Your task to perform on an android device: install app "YouTube Kids" Image 0: 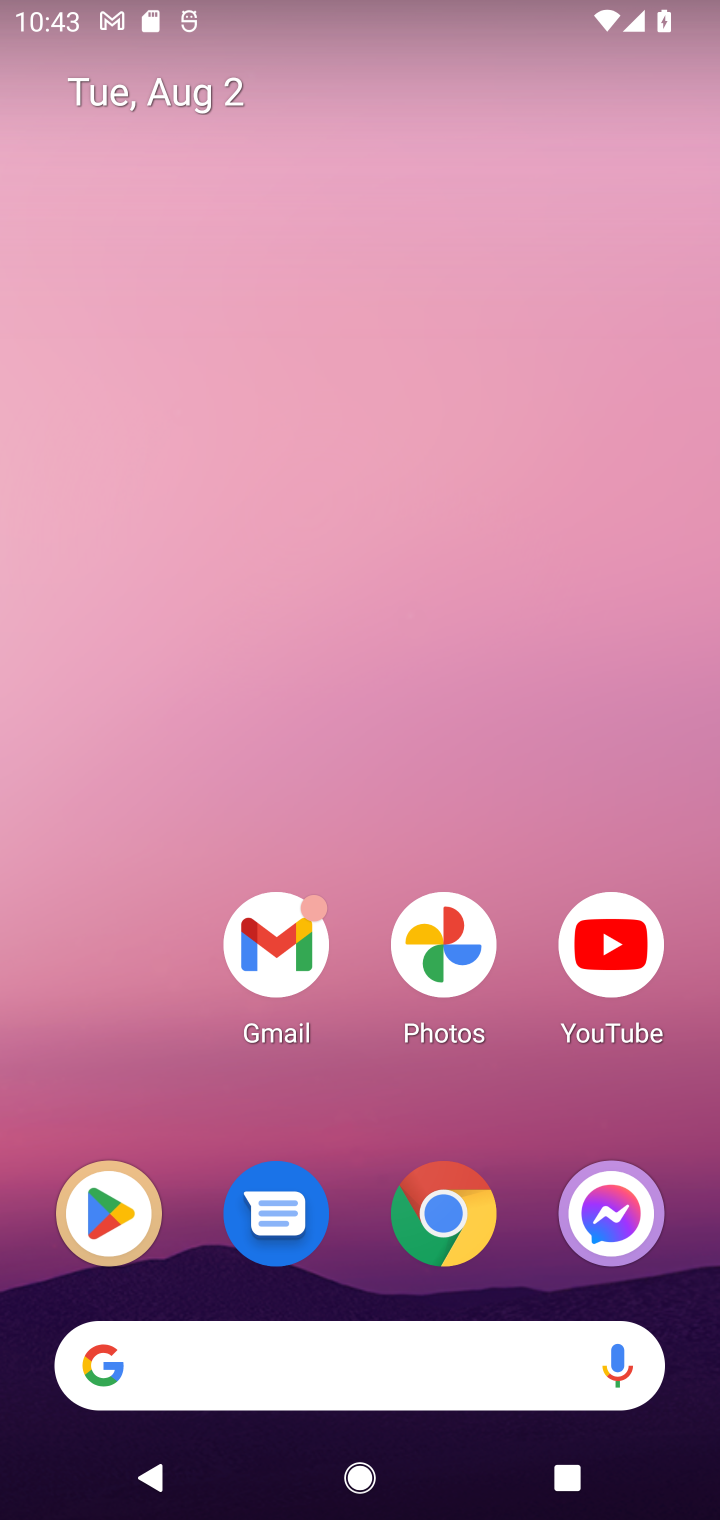
Step 0: press home button
Your task to perform on an android device: install app "YouTube Kids" Image 1: 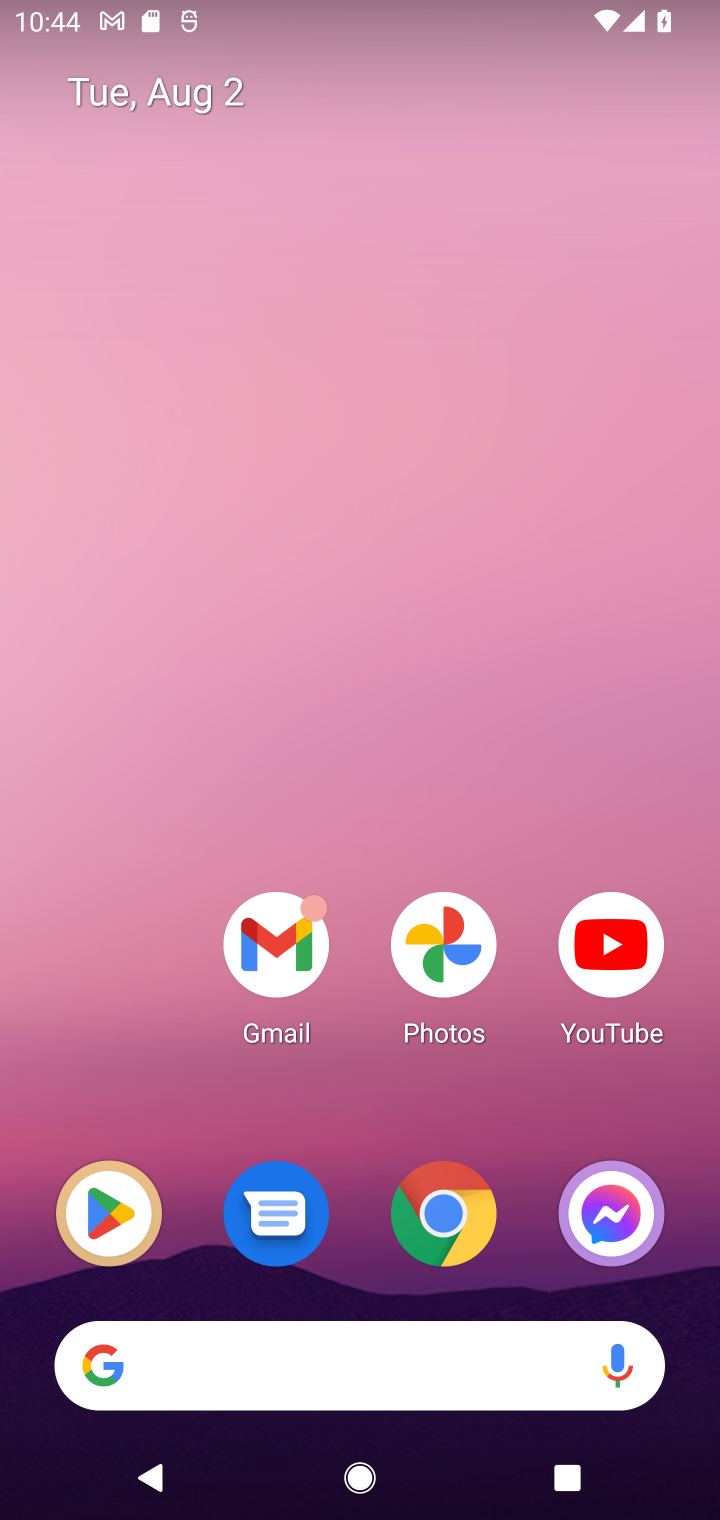
Step 1: drag from (360, 1254) to (311, 96)
Your task to perform on an android device: install app "YouTube Kids" Image 2: 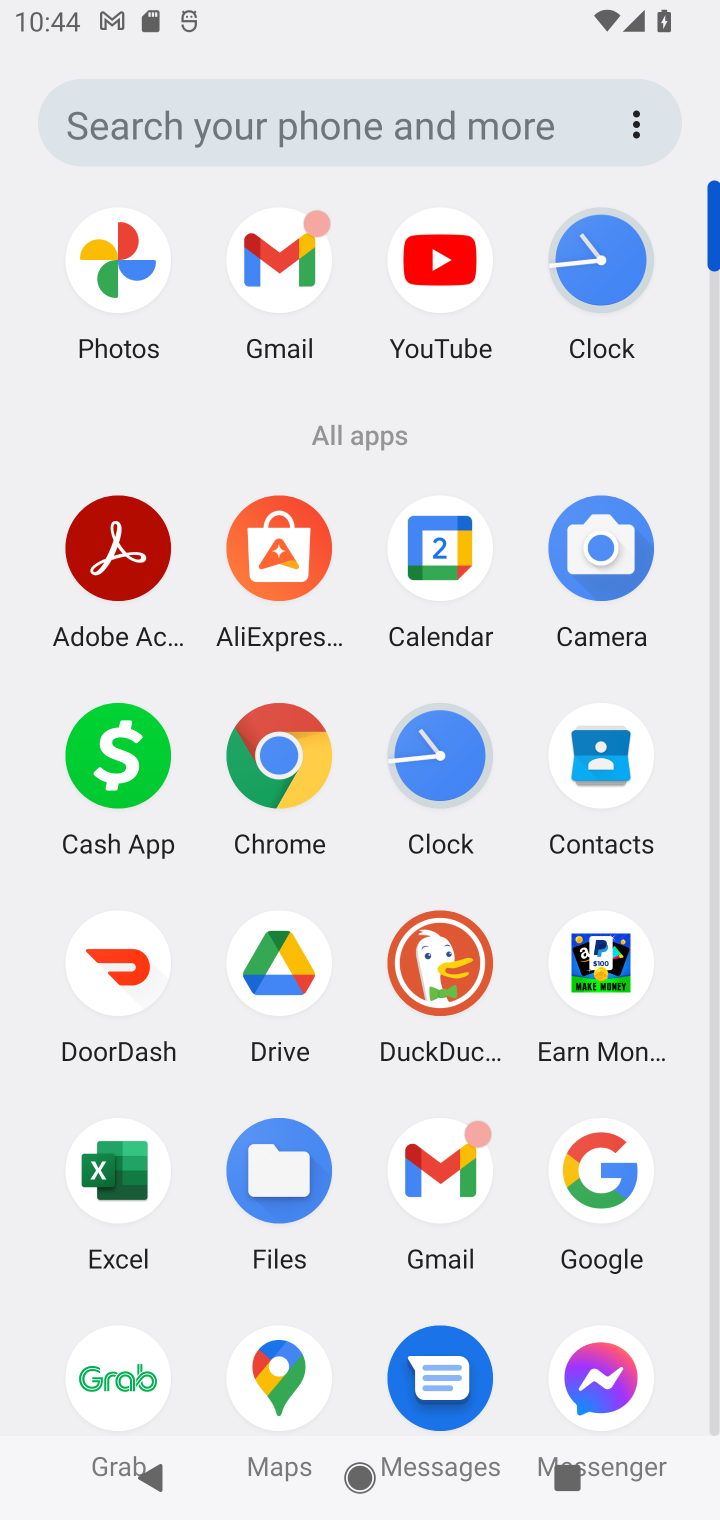
Step 2: drag from (335, 1202) to (371, 375)
Your task to perform on an android device: install app "YouTube Kids" Image 3: 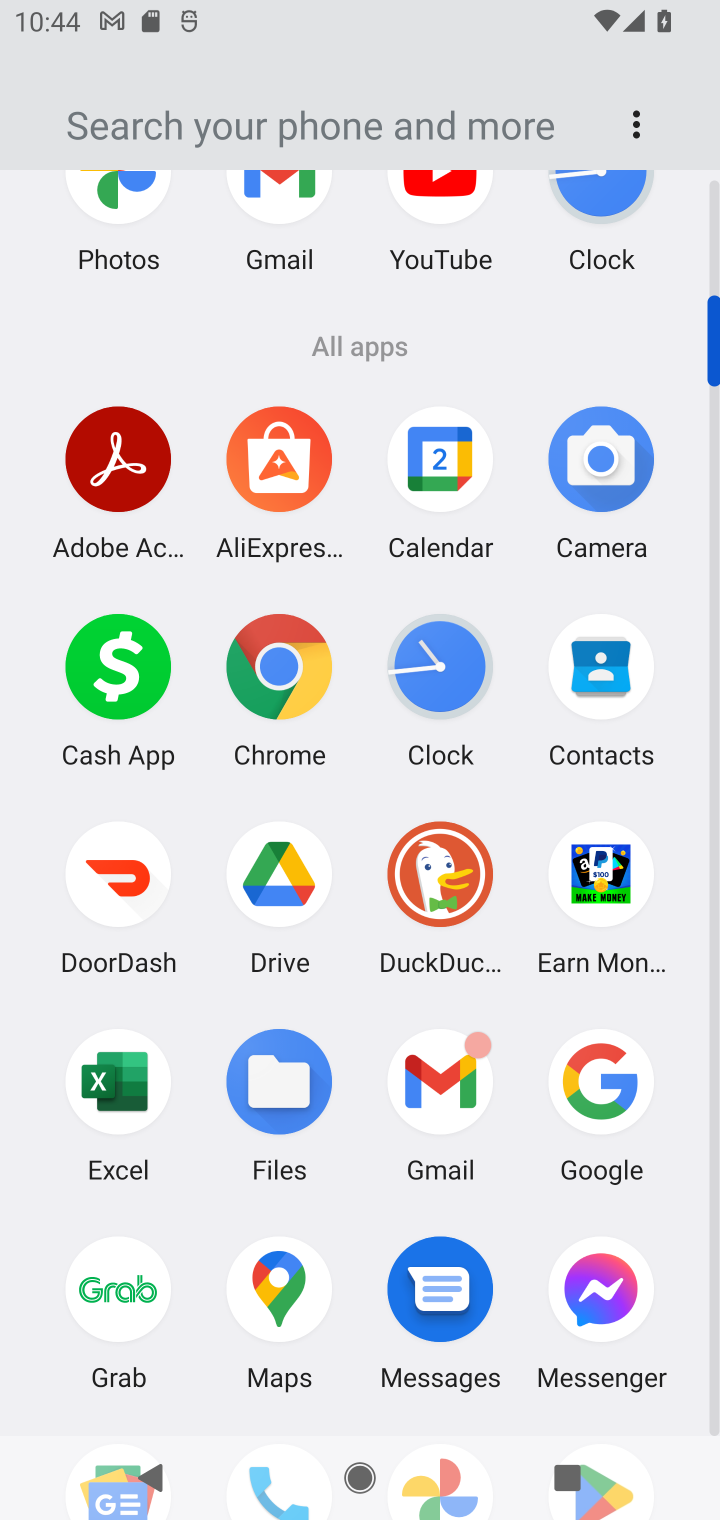
Step 3: drag from (514, 1328) to (603, 718)
Your task to perform on an android device: install app "YouTube Kids" Image 4: 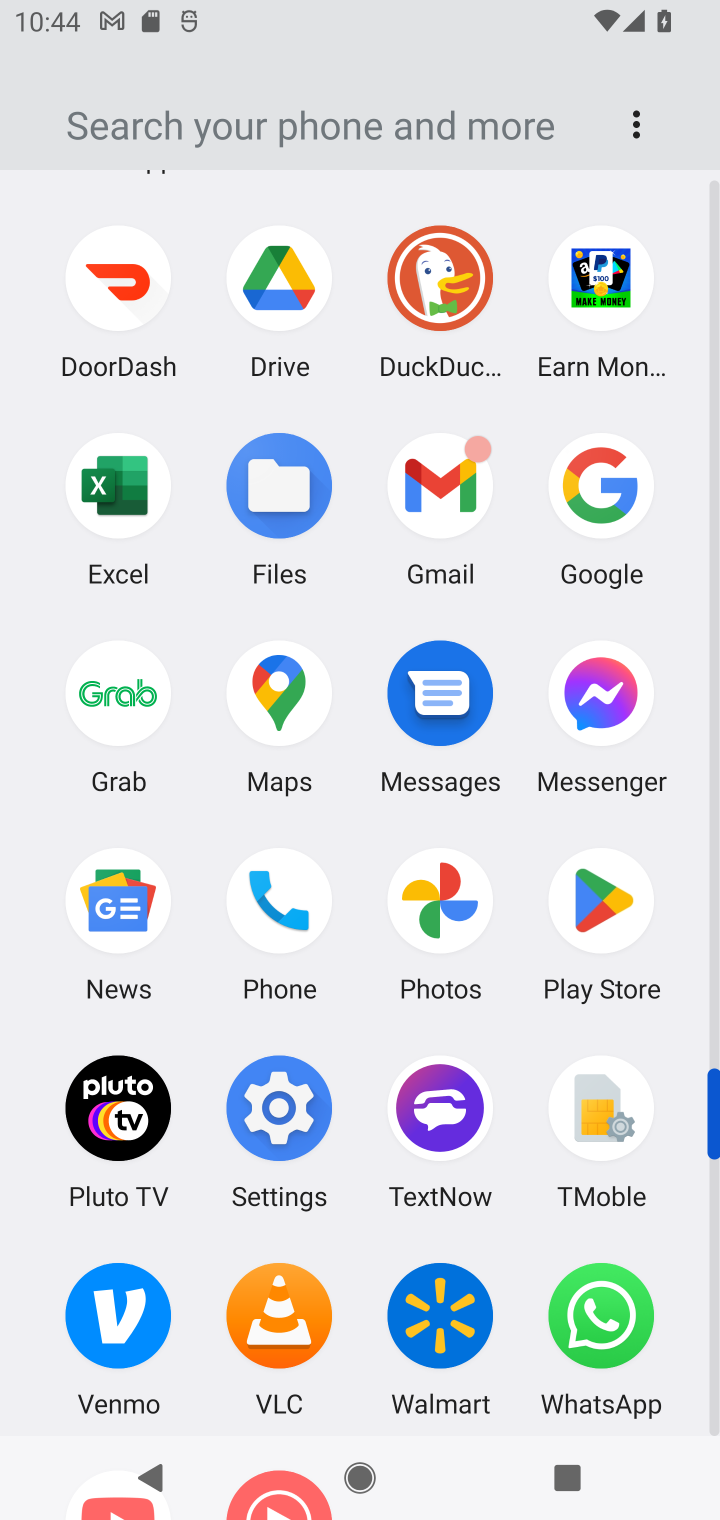
Step 4: click (611, 1490)
Your task to perform on an android device: install app "YouTube Kids" Image 5: 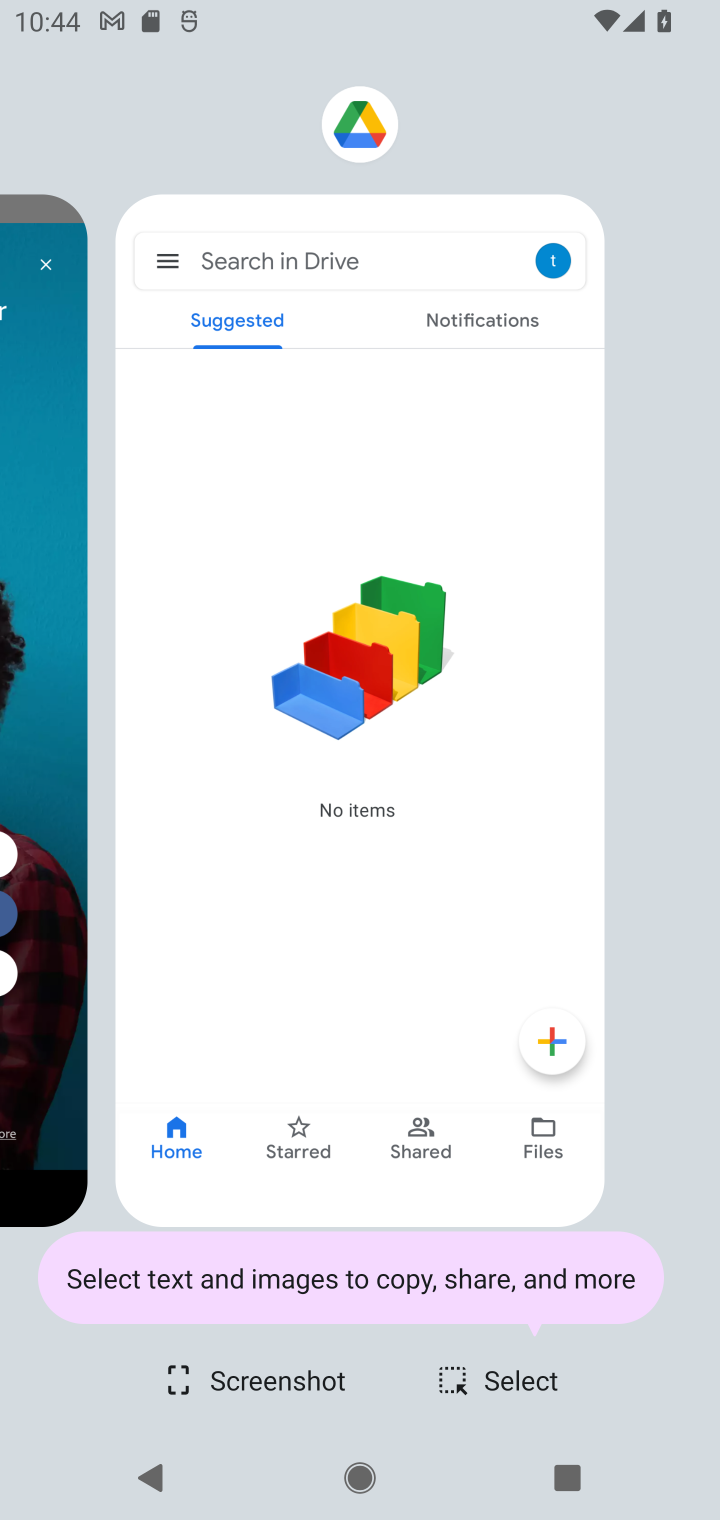
Step 5: click (394, 226)
Your task to perform on an android device: install app "YouTube Kids" Image 6: 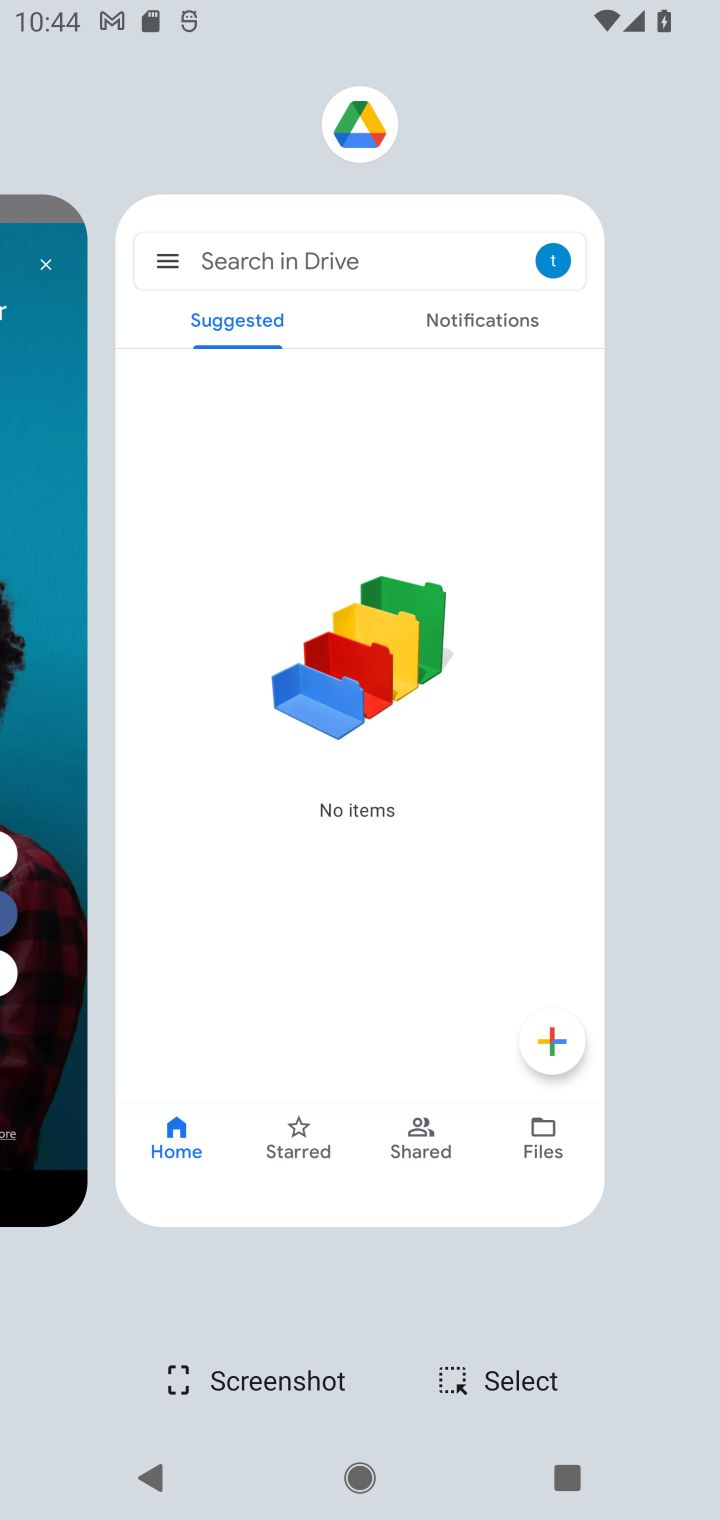
Step 6: click (394, 226)
Your task to perform on an android device: install app "YouTube Kids" Image 7: 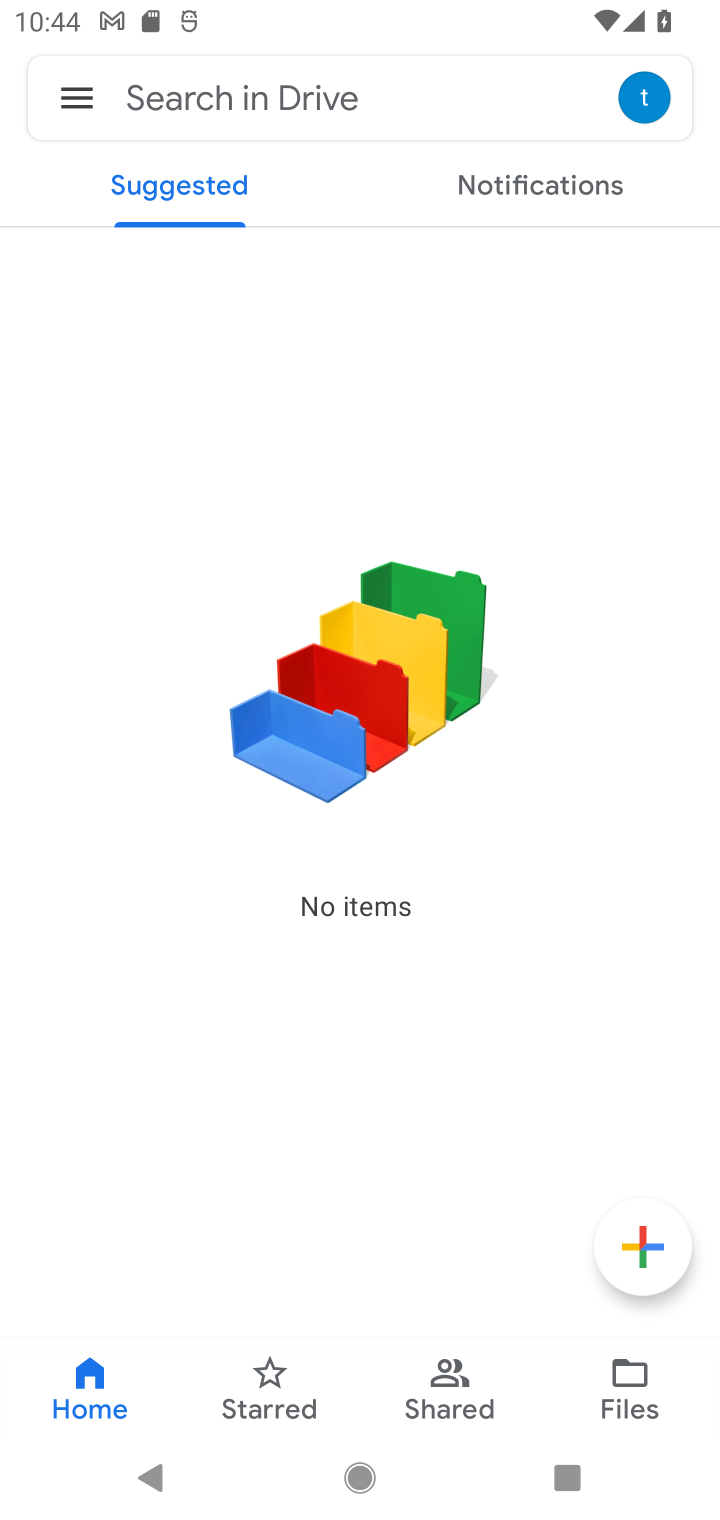
Step 7: press home button
Your task to perform on an android device: install app "YouTube Kids" Image 8: 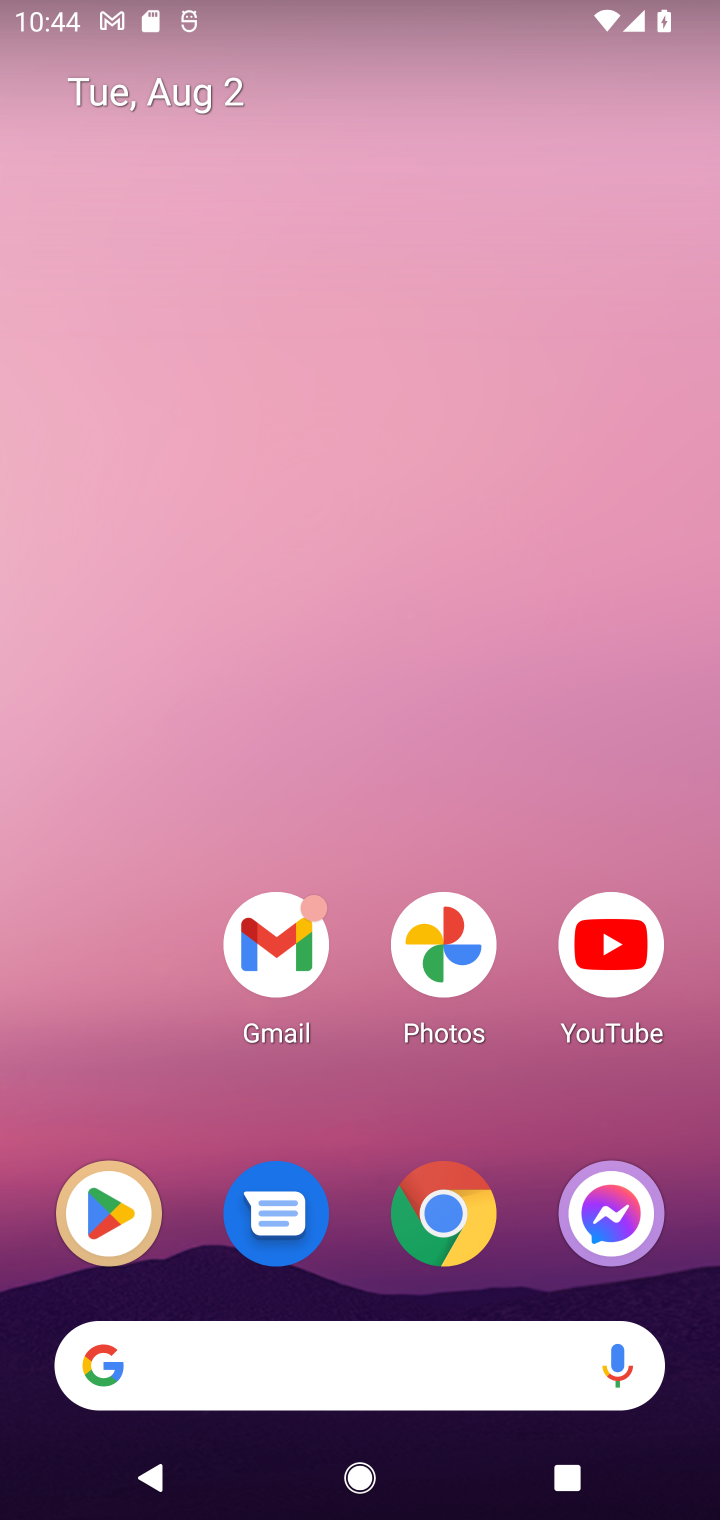
Step 8: click (120, 1203)
Your task to perform on an android device: install app "YouTube Kids" Image 9: 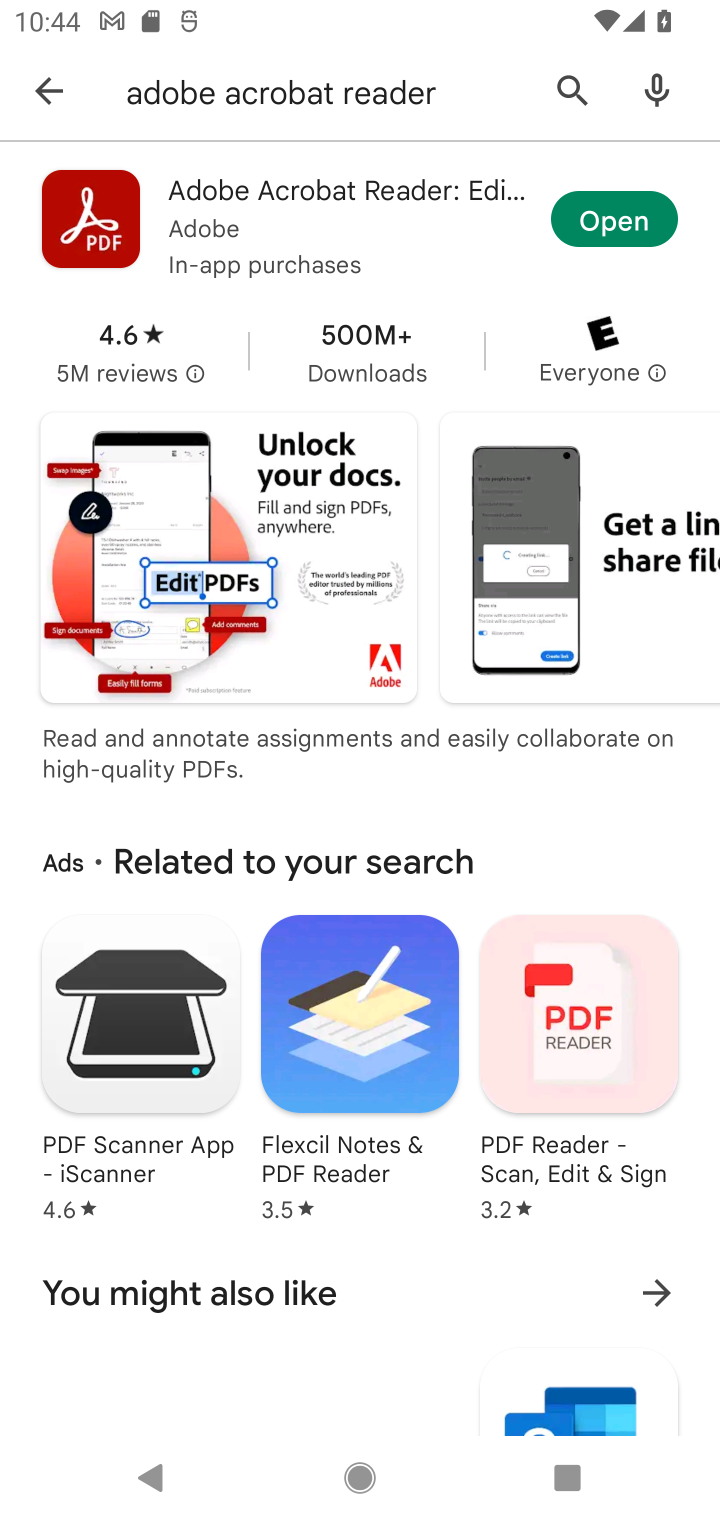
Step 9: click (57, 79)
Your task to perform on an android device: install app "YouTube Kids" Image 10: 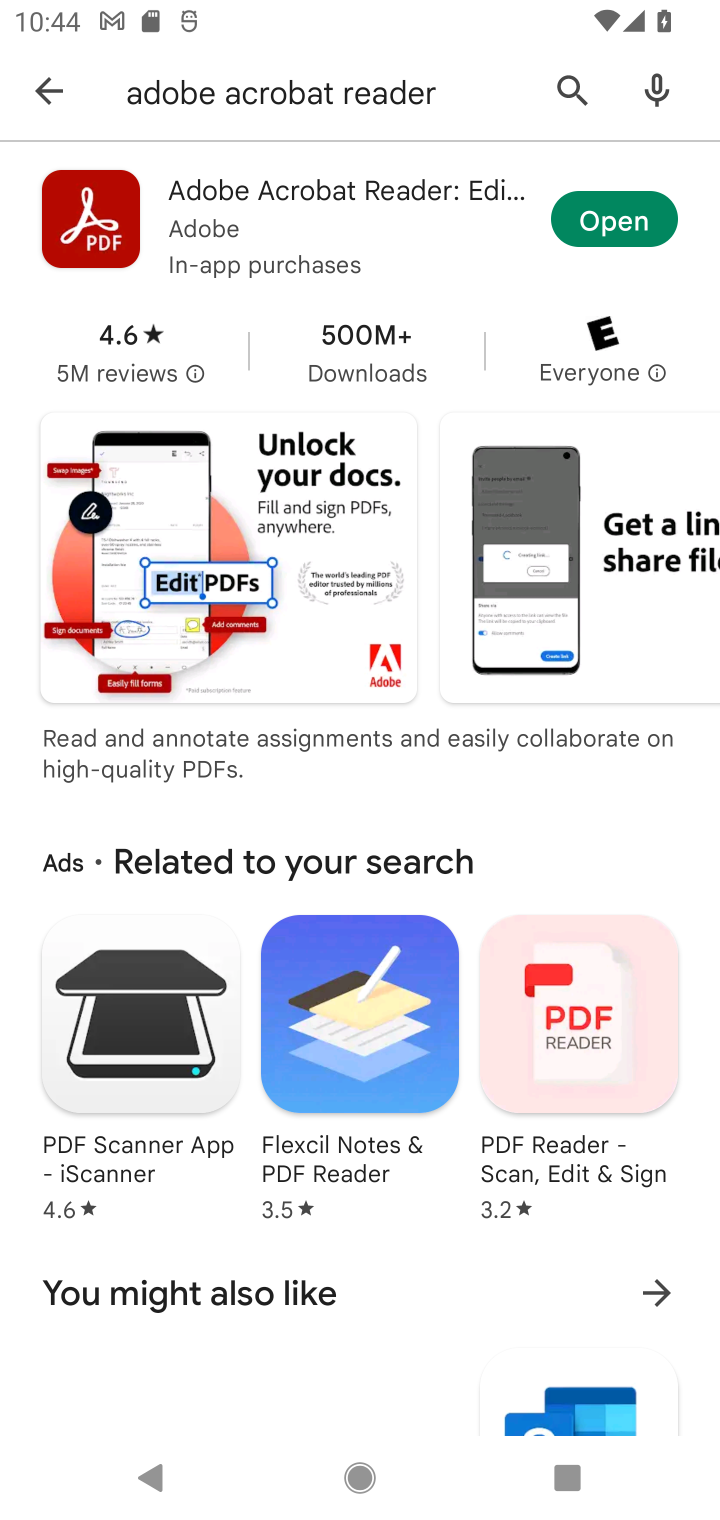
Step 10: click (44, 101)
Your task to perform on an android device: install app "YouTube Kids" Image 11: 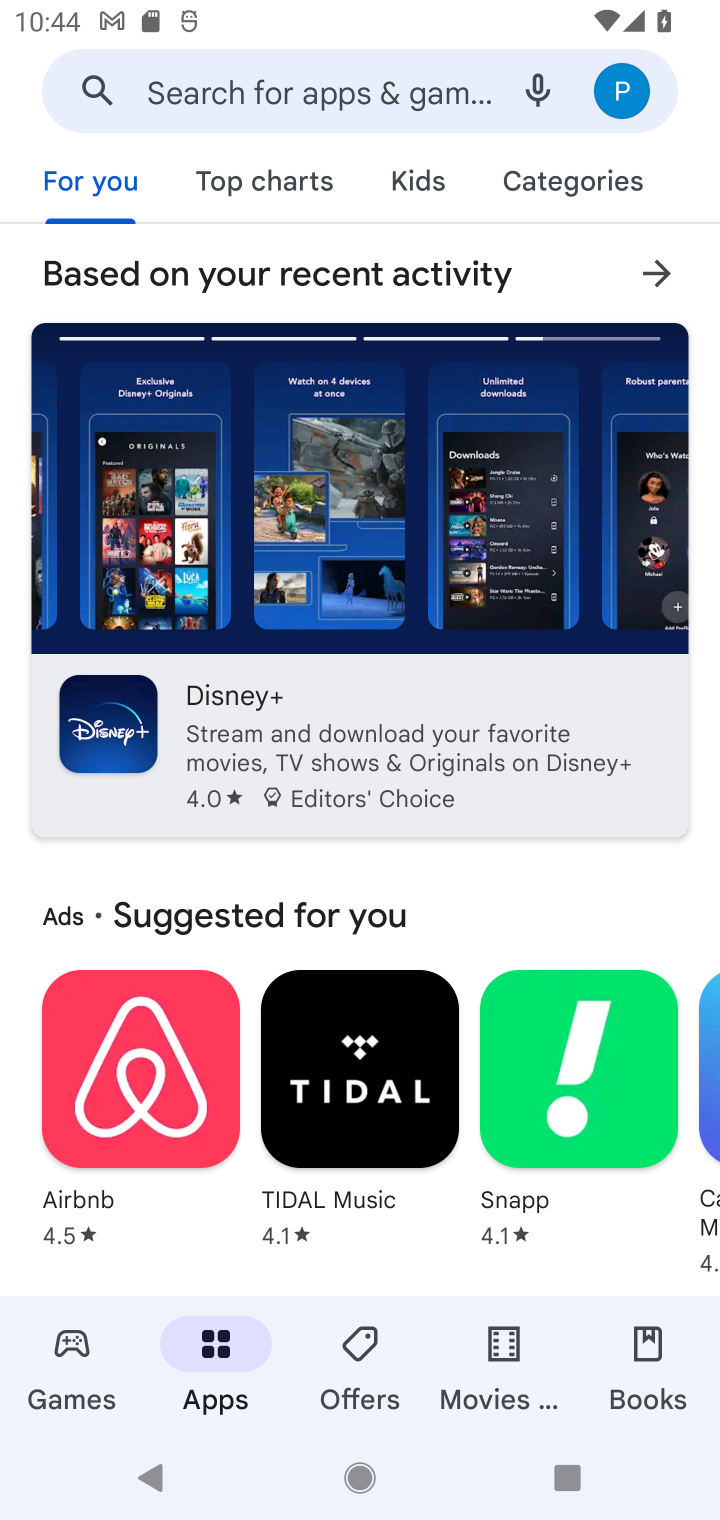
Step 11: click (241, 79)
Your task to perform on an android device: install app "YouTube Kids" Image 12: 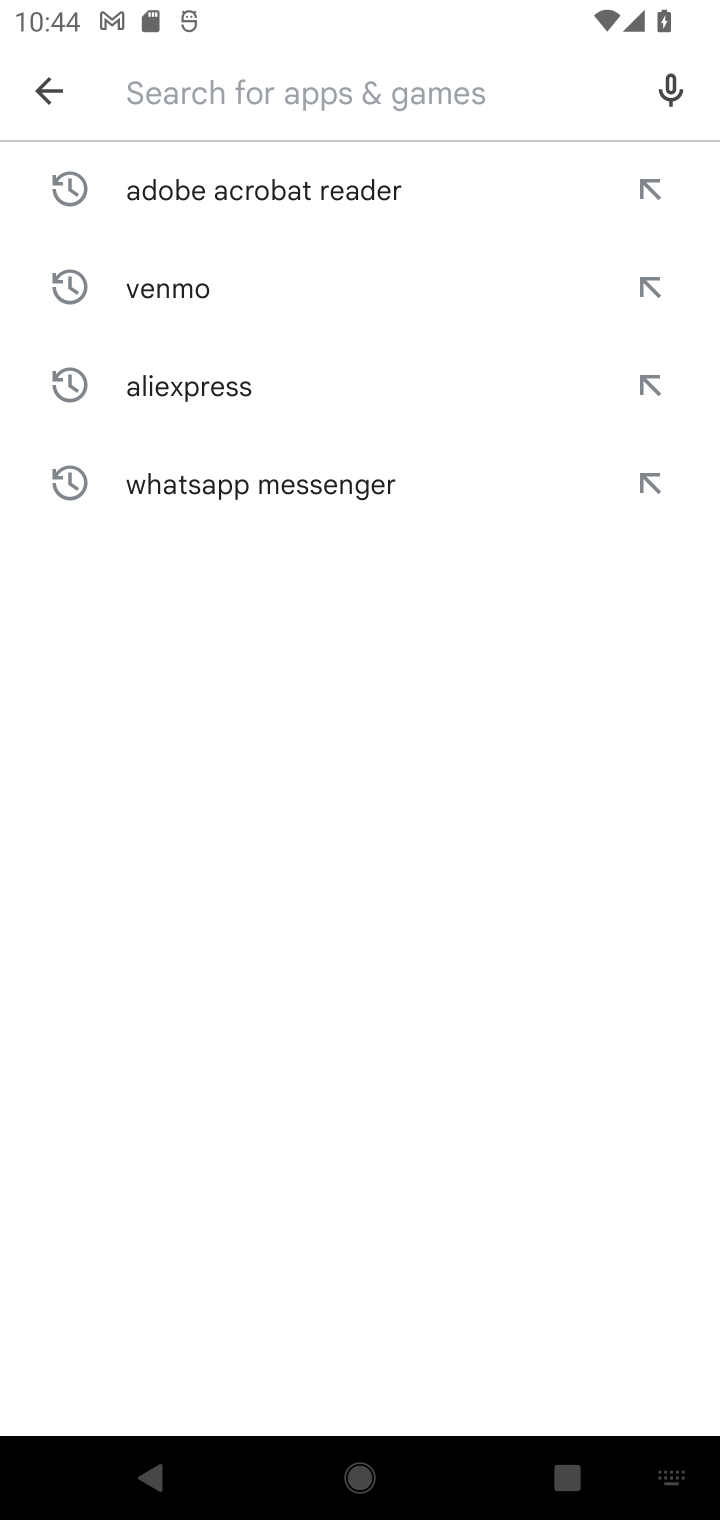
Step 12: type "YouTube Kids"
Your task to perform on an android device: install app "YouTube Kids" Image 13: 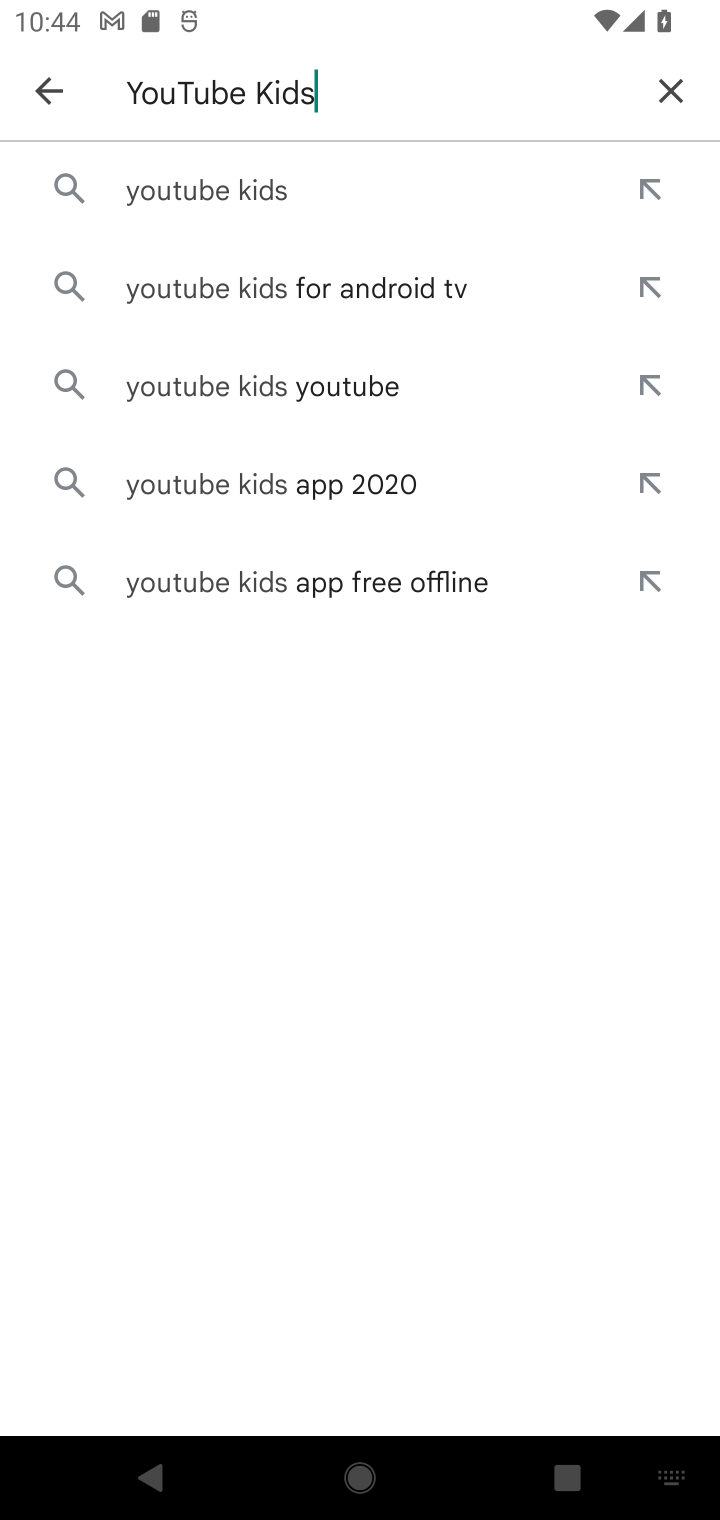
Step 13: click (163, 181)
Your task to perform on an android device: install app "YouTube Kids" Image 14: 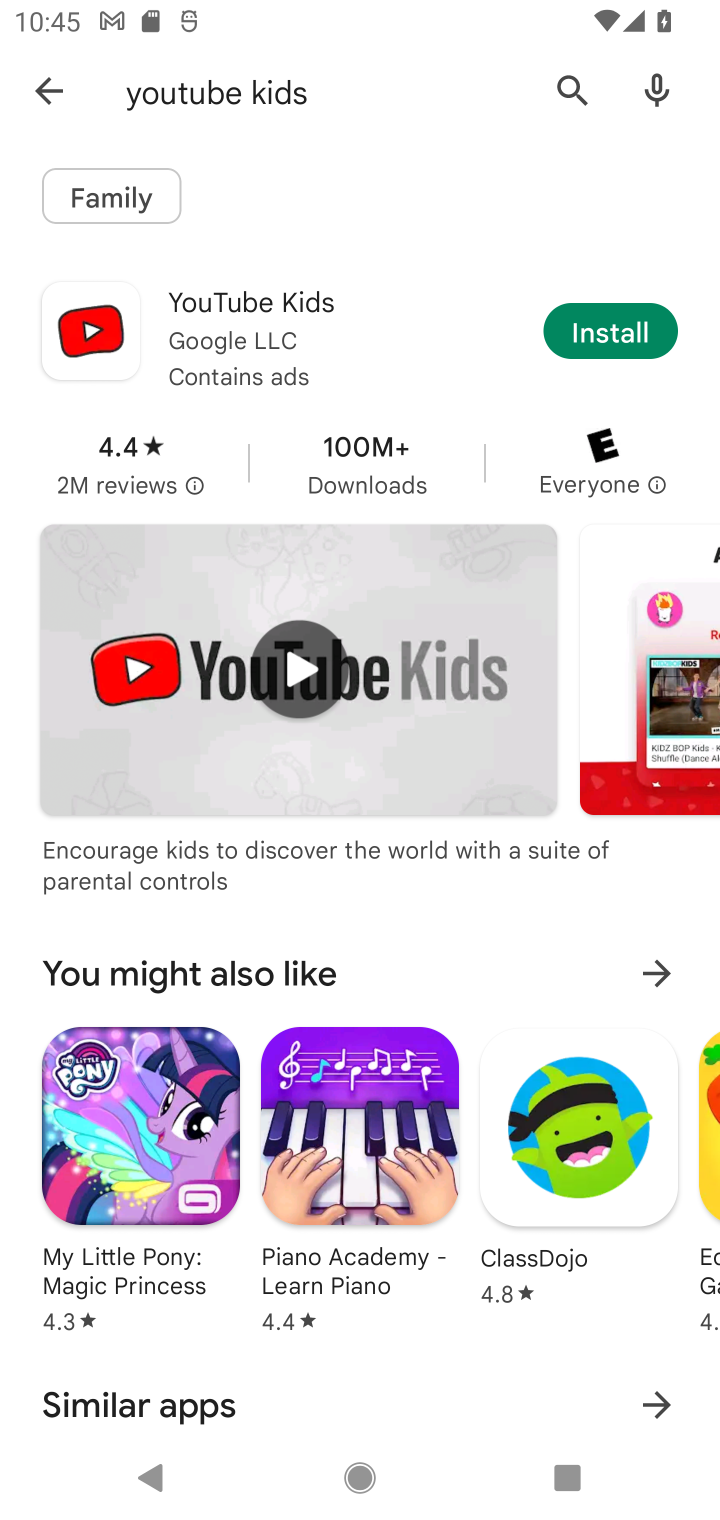
Step 14: click (603, 331)
Your task to perform on an android device: install app "YouTube Kids" Image 15: 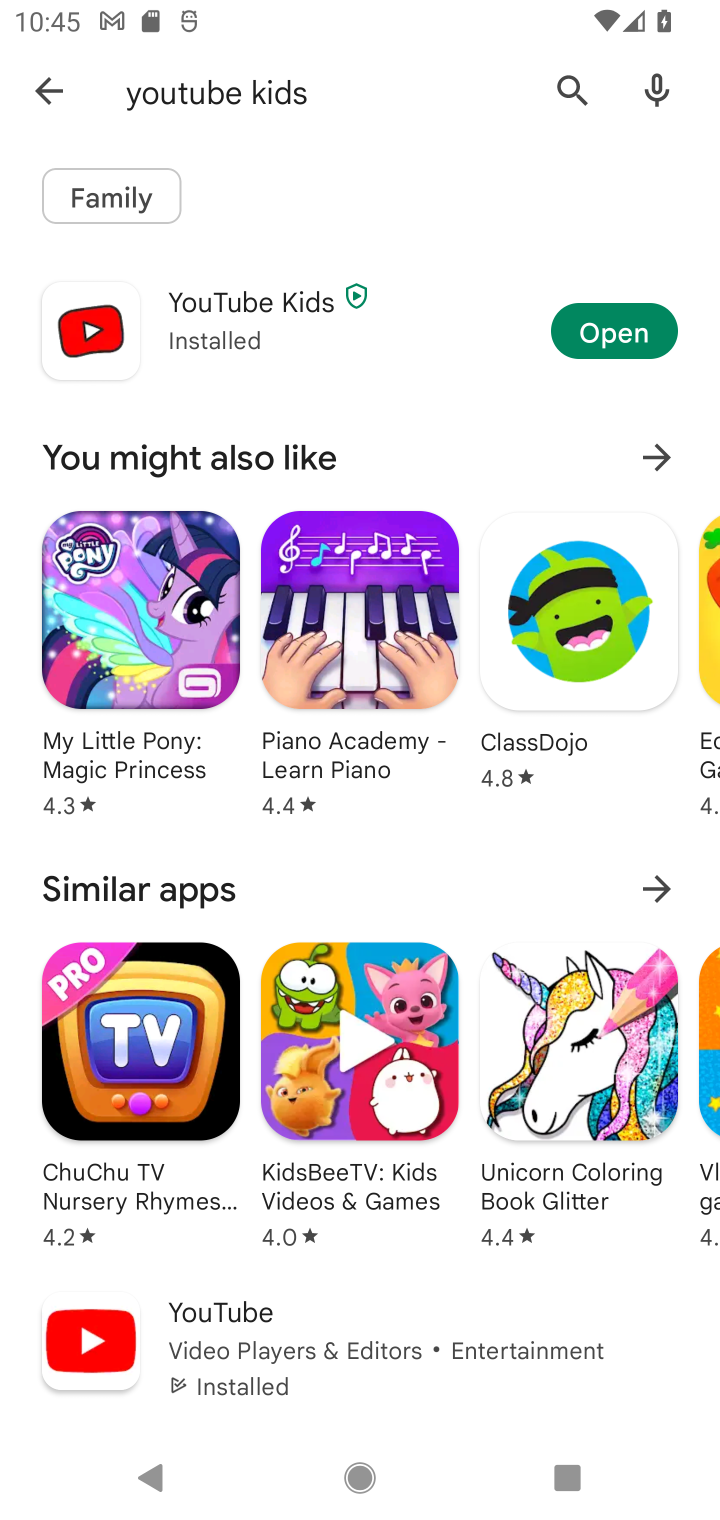
Step 15: click (602, 329)
Your task to perform on an android device: install app "YouTube Kids" Image 16: 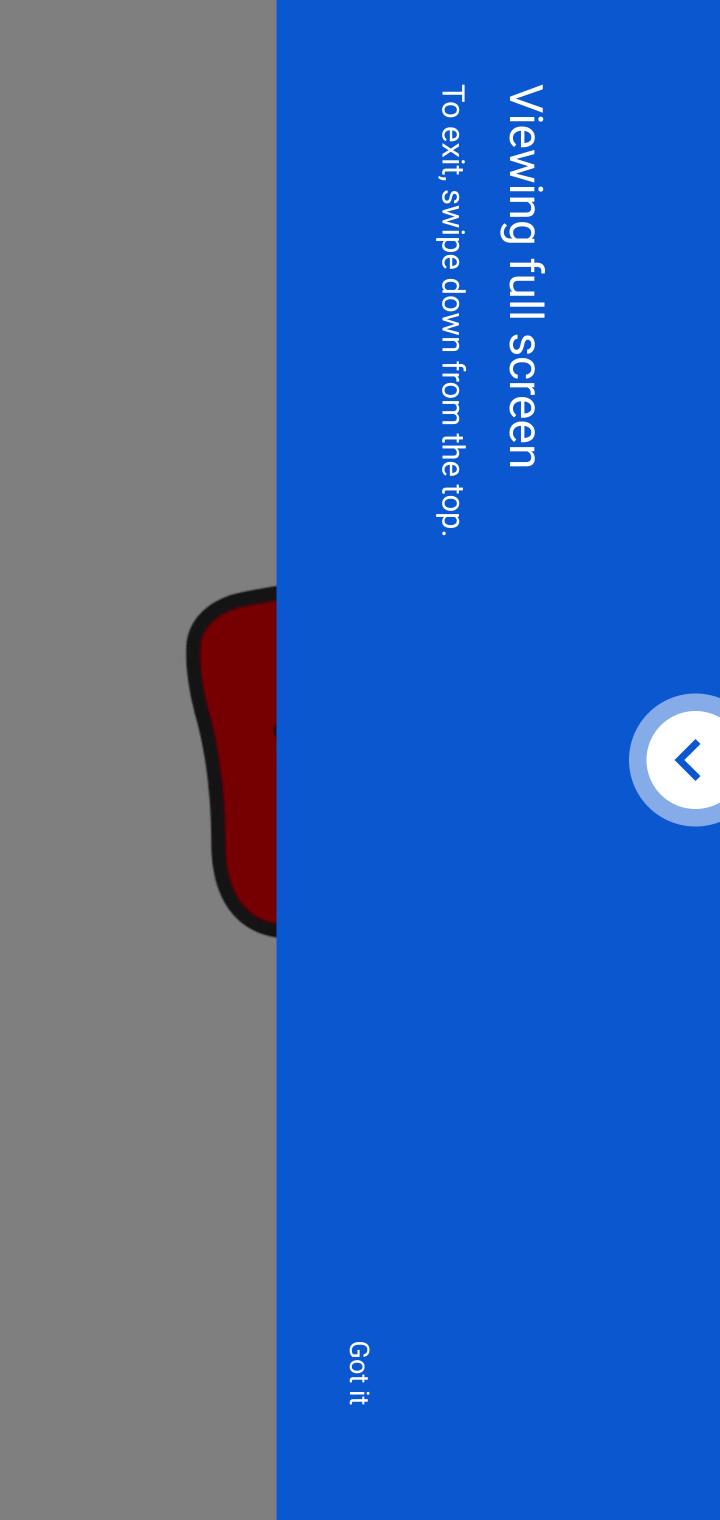
Step 16: task complete